Your task to perform on an android device: turn smart compose on in the gmail app Image 0: 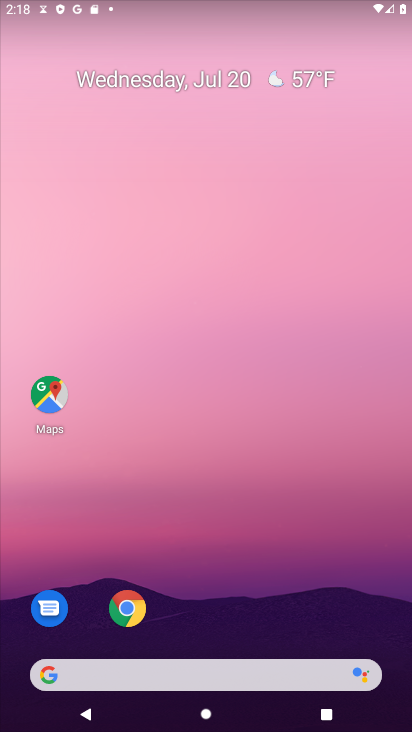
Step 0: drag from (195, 613) to (202, 83)
Your task to perform on an android device: turn smart compose on in the gmail app Image 1: 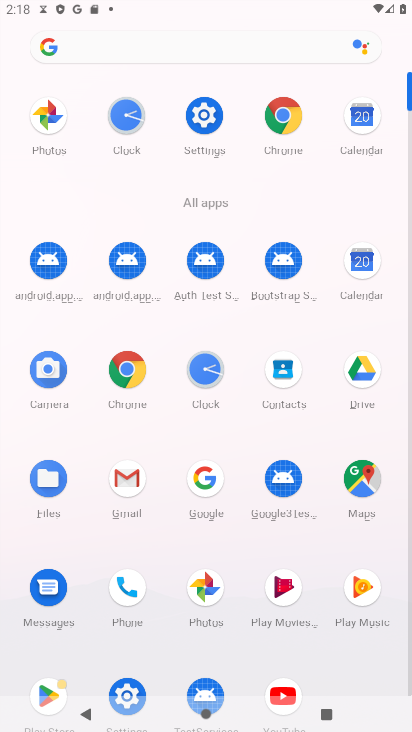
Step 1: click (121, 486)
Your task to perform on an android device: turn smart compose on in the gmail app Image 2: 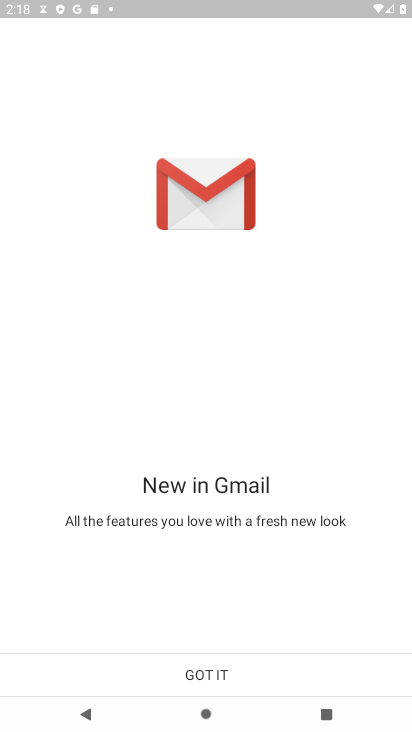
Step 2: click (211, 680)
Your task to perform on an android device: turn smart compose on in the gmail app Image 3: 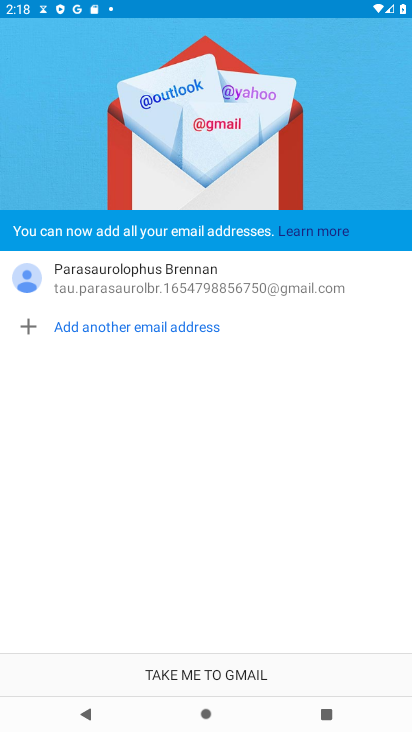
Step 3: click (224, 674)
Your task to perform on an android device: turn smart compose on in the gmail app Image 4: 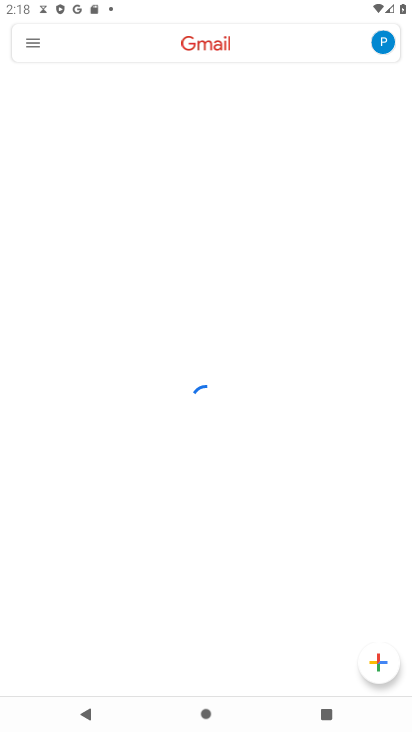
Step 4: click (32, 36)
Your task to perform on an android device: turn smart compose on in the gmail app Image 5: 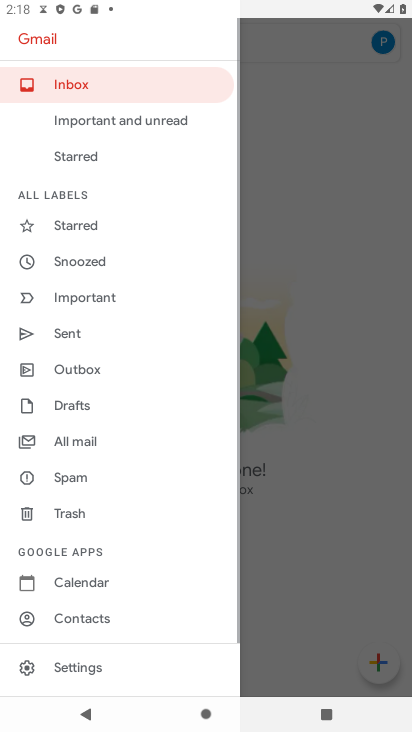
Step 5: click (59, 183)
Your task to perform on an android device: turn smart compose on in the gmail app Image 6: 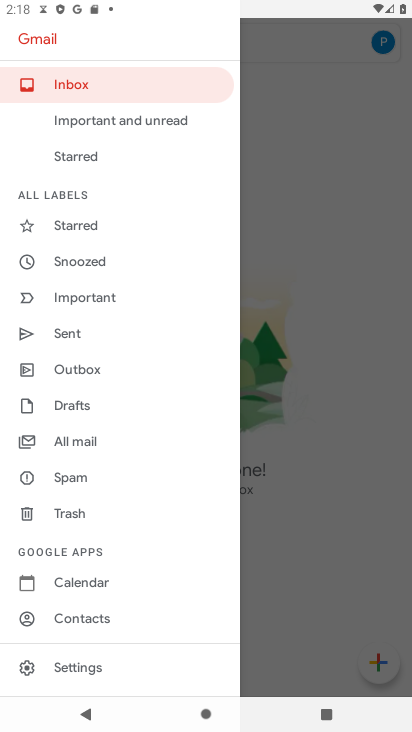
Step 6: click (72, 662)
Your task to perform on an android device: turn smart compose on in the gmail app Image 7: 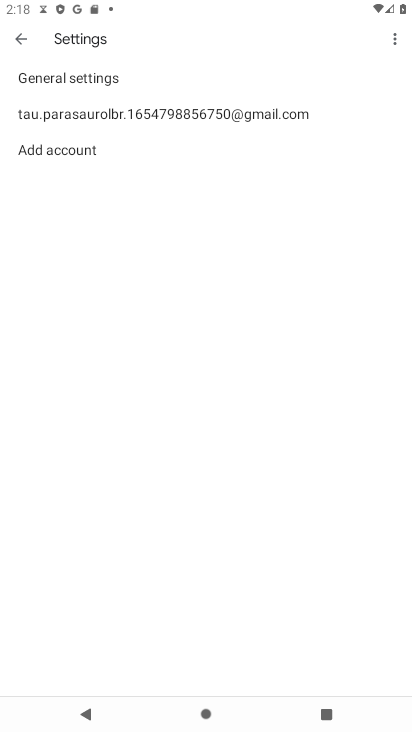
Step 7: click (252, 110)
Your task to perform on an android device: turn smart compose on in the gmail app Image 8: 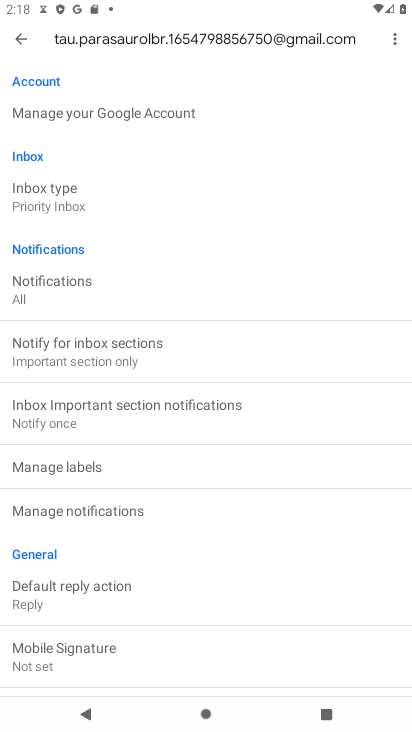
Step 8: drag from (139, 611) to (193, 361)
Your task to perform on an android device: turn smart compose on in the gmail app Image 9: 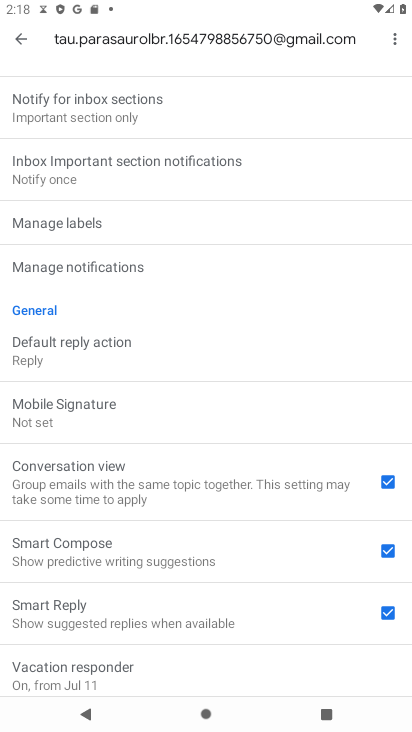
Step 9: drag from (147, 547) to (189, 289)
Your task to perform on an android device: turn smart compose on in the gmail app Image 10: 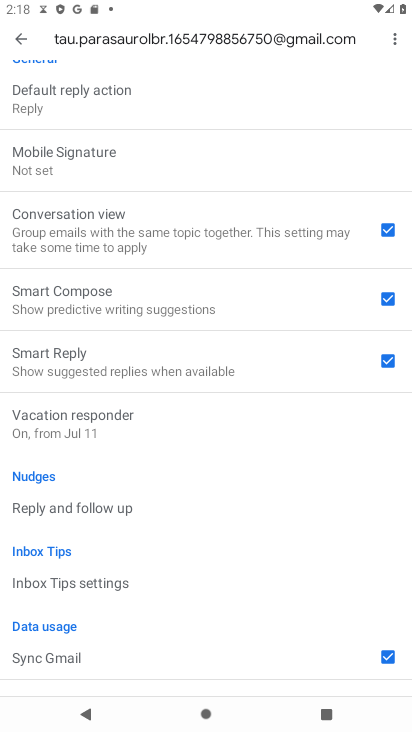
Step 10: click (131, 419)
Your task to perform on an android device: turn smart compose on in the gmail app Image 11: 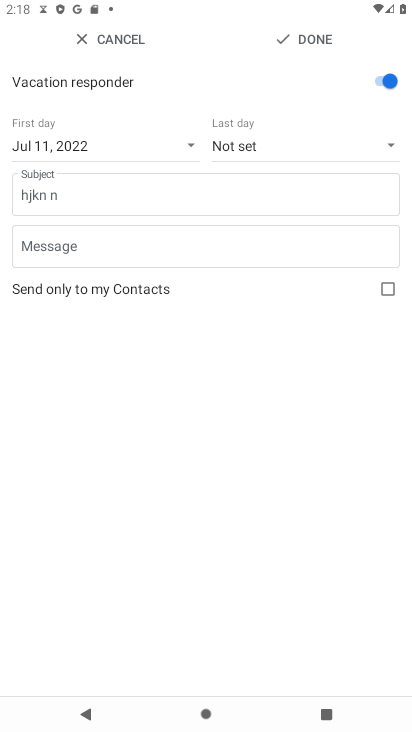
Step 11: task complete